Your task to perform on an android device: toggle notification dots Image 0: 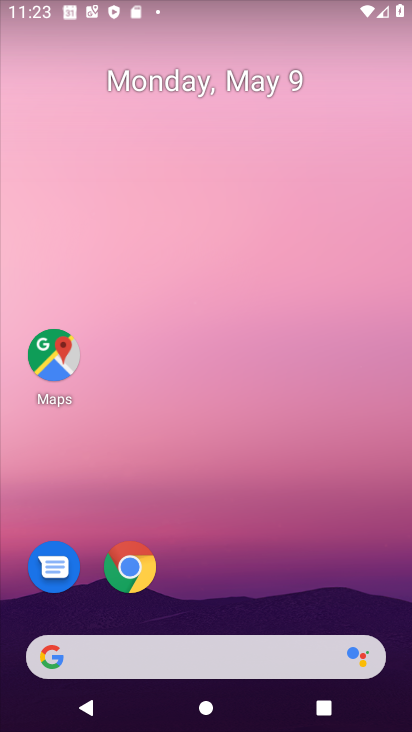
Step 0: drag from (172, 651) to (83, 40)
Your task to perform on an android device: toggle notification dots Image 1: 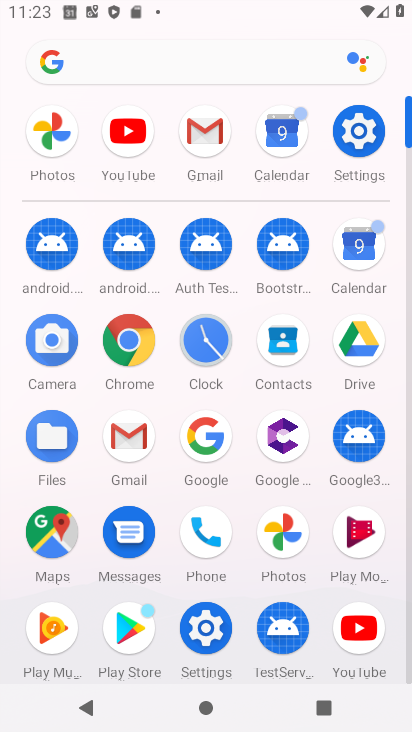
Step 1: click (187, 622)
Your task to perform on an android device: toggle notification dots Image 2: 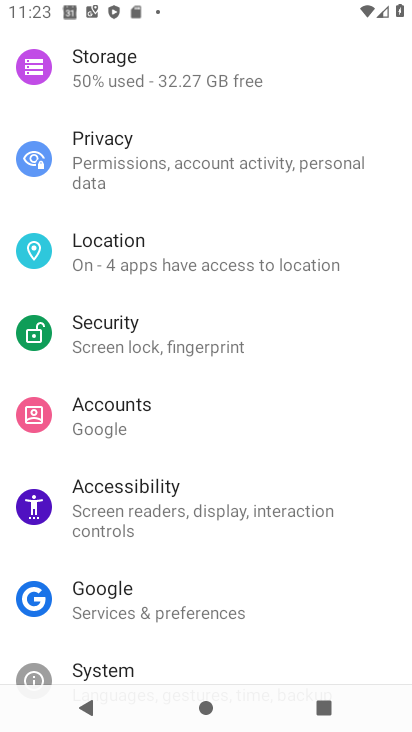
Step 2: drag from (157, 76) to (238, 669)
Your task to perform on an android device: toggle notification dots Image 3: 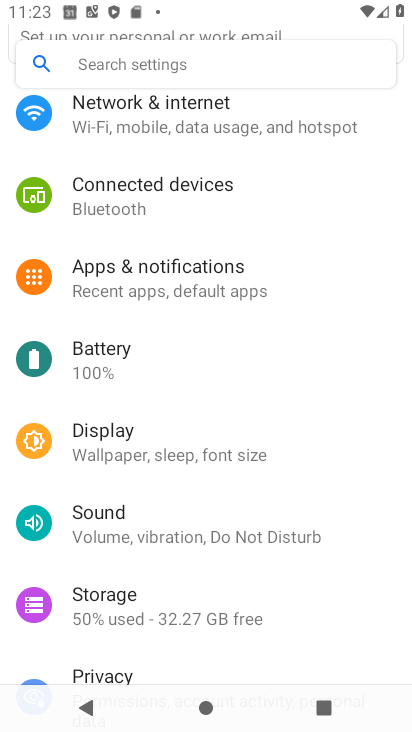
Step 3: click (162, 272)
Your task to perform on an android device: toggle notification dots Image 4: 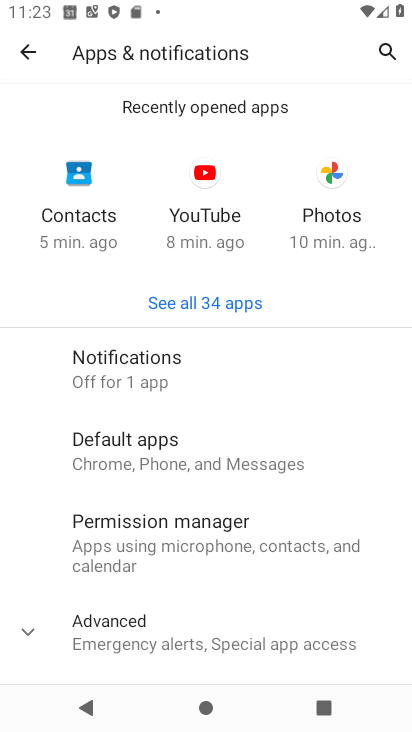
Step 4: drag from (248, 563) to (39, 22)
Your task to perform on an android device: toggle notification dots Image 5: 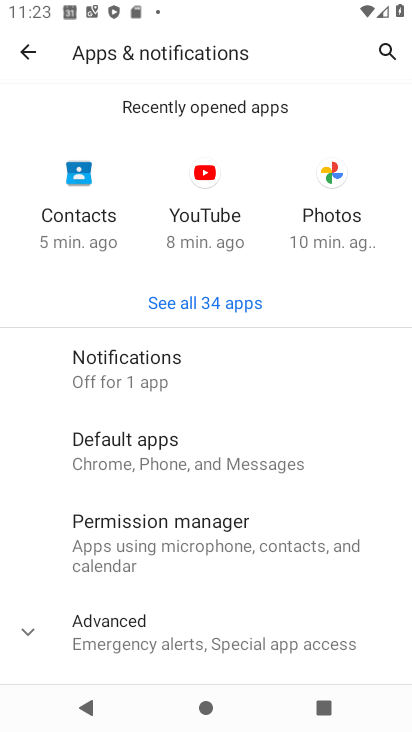
Step 5: drag from (244, 591) to (142, 26)
Your task to perform on an android device: toggle notification dots Image 6: 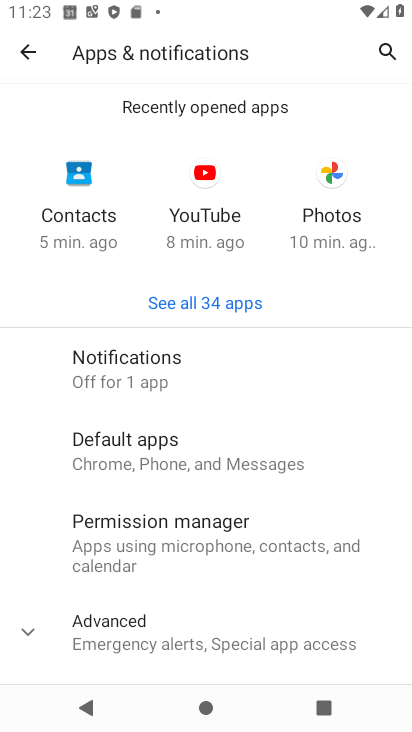
Step 6: click (189, 639)
Your task to perform on an android device: toggle notification dots Image 7: 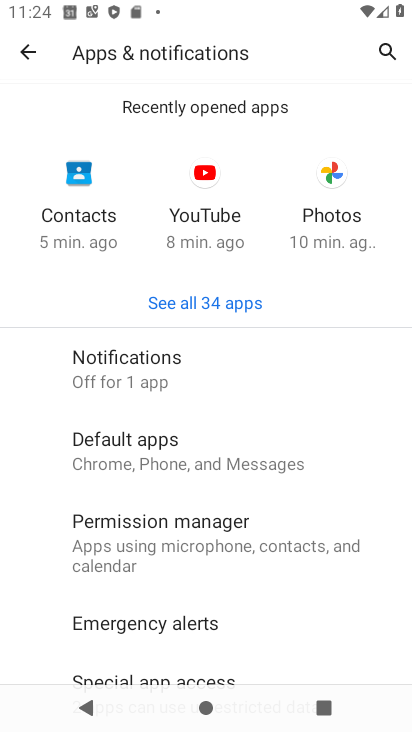
Step 7: click (175, 389)
Your task to perform on an android device: toggle notification dots Image 8: 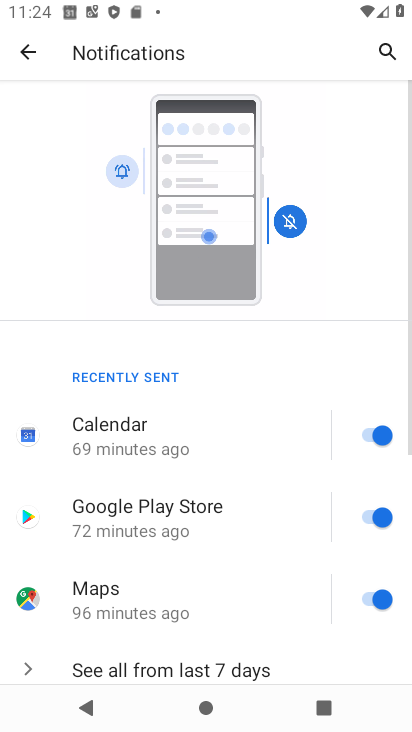
Step 8: drag from (214, 624) to (152, 64)
Your task to perform on an android device: toggle notification dots Image 9: 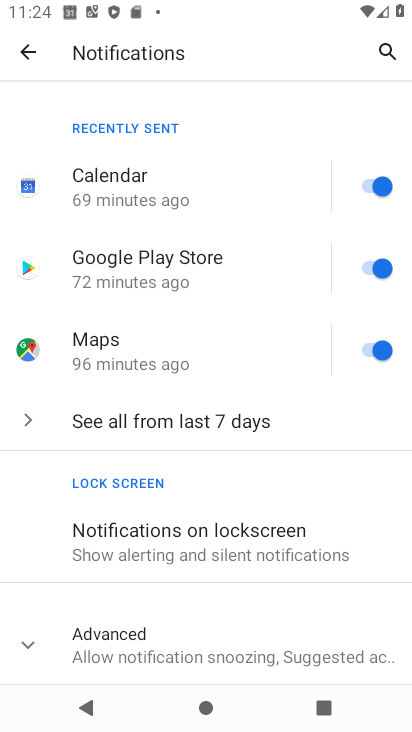
Step 9: click (173, 649)
Your task to perform on an android device: toggle notification dots Image 10: 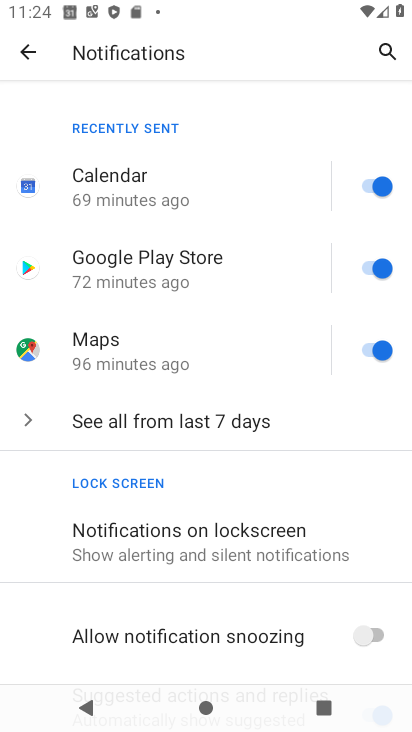
Step 10: drag from (229, 624) to (163, 154)
Your task to perform on an android device: toggle notification dots Image 11: 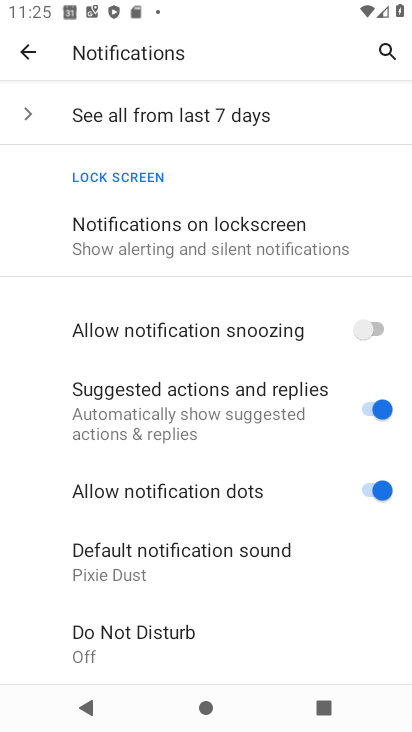
Step 11: click (366, 489)
Your task to perform on an android device: toggle notification dots Image 12: 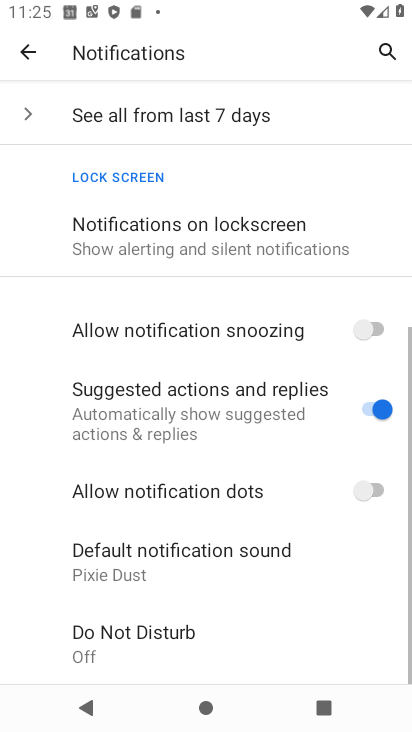
Step 12: task complete